Your task to perform on an android device: What's the news in Jamaica? Image 0: 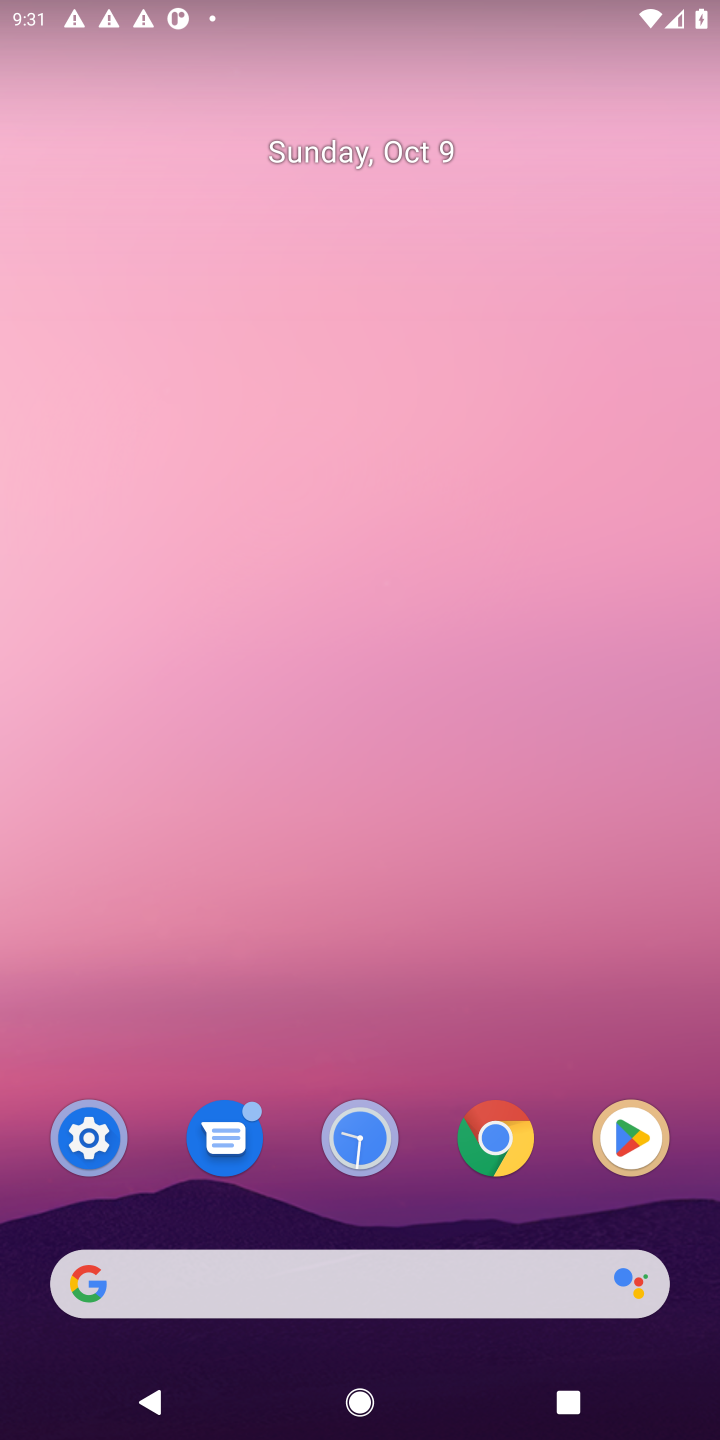
Step 0: click (494, 1140)
Your task to perform on an android device: What's the news in Jamaica? Image 1: 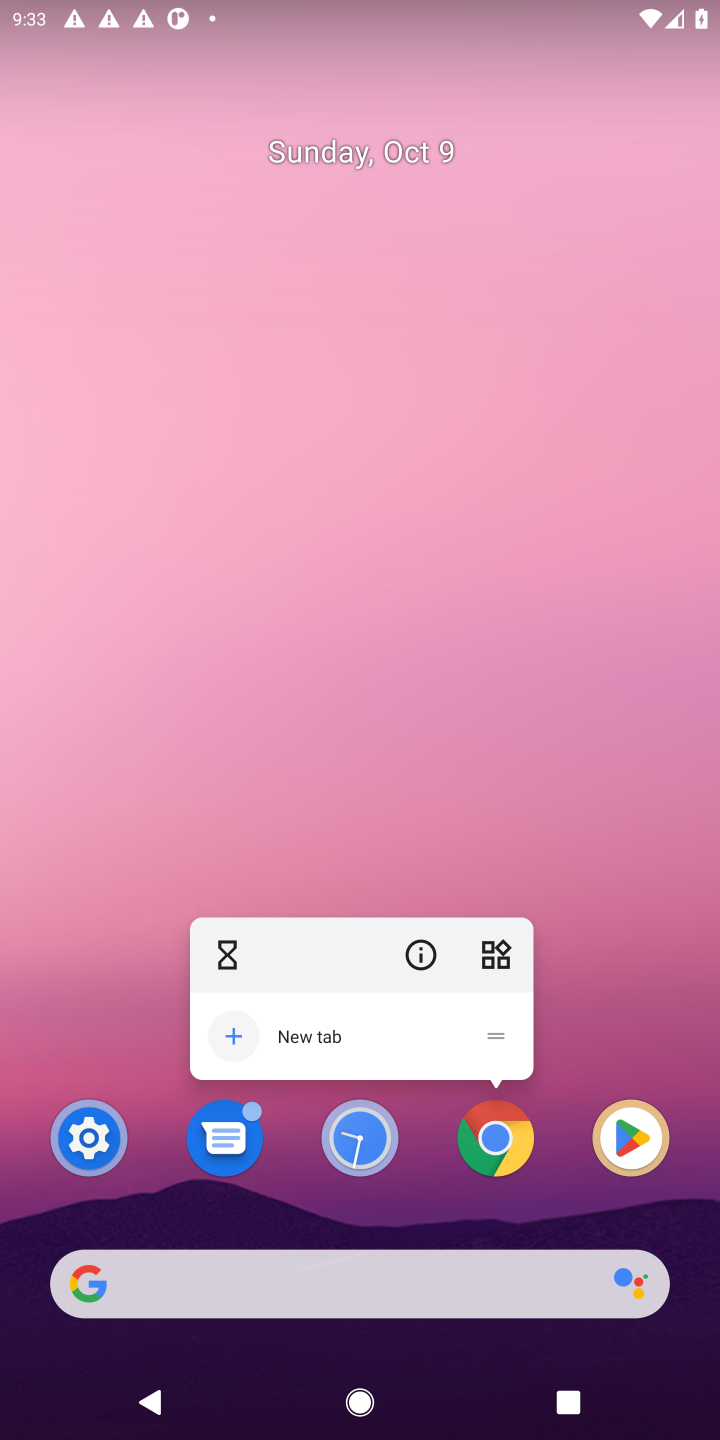
Step 1: click (488, 1143)
Your task to perform on an android device: What's the news in Jamaica? Image 2: 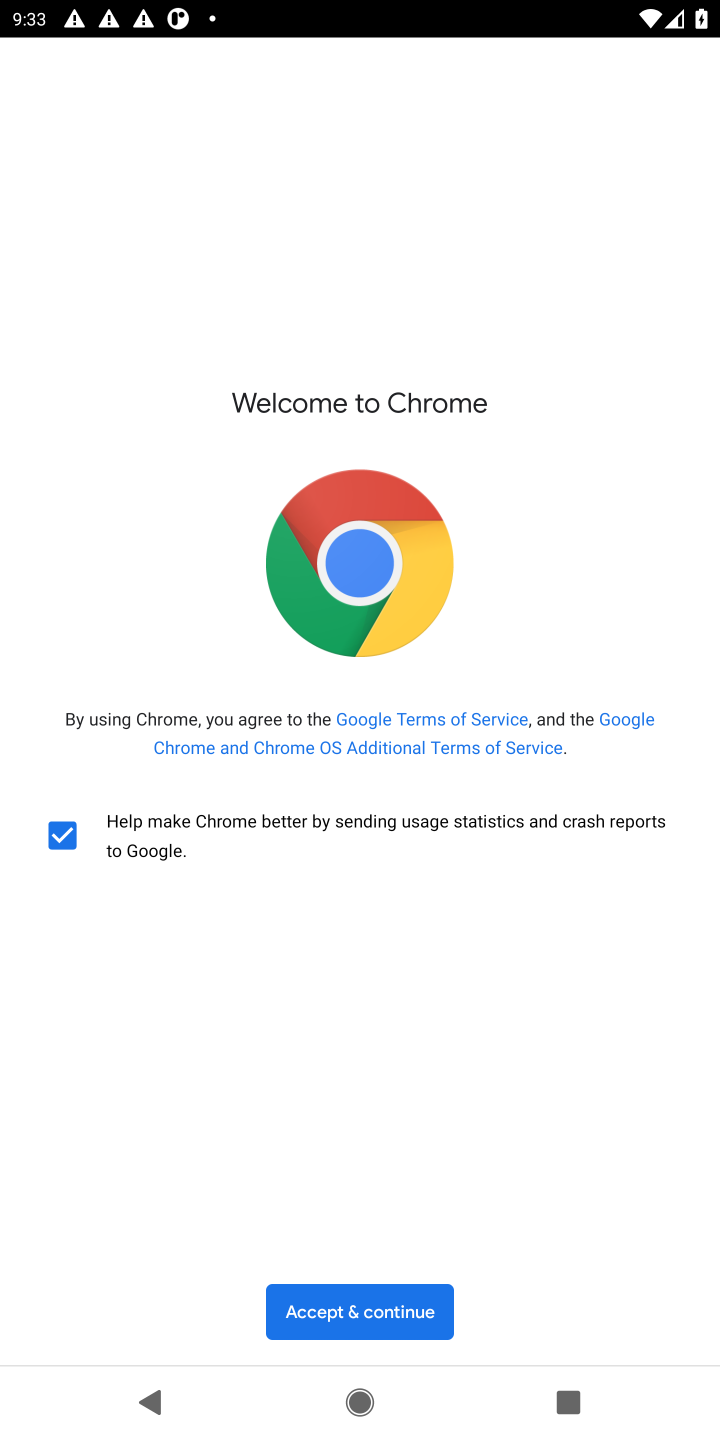
Step 2: click (341, 1306)
Your task to perform on an android device: What's the news in Jamaica? Image 3: 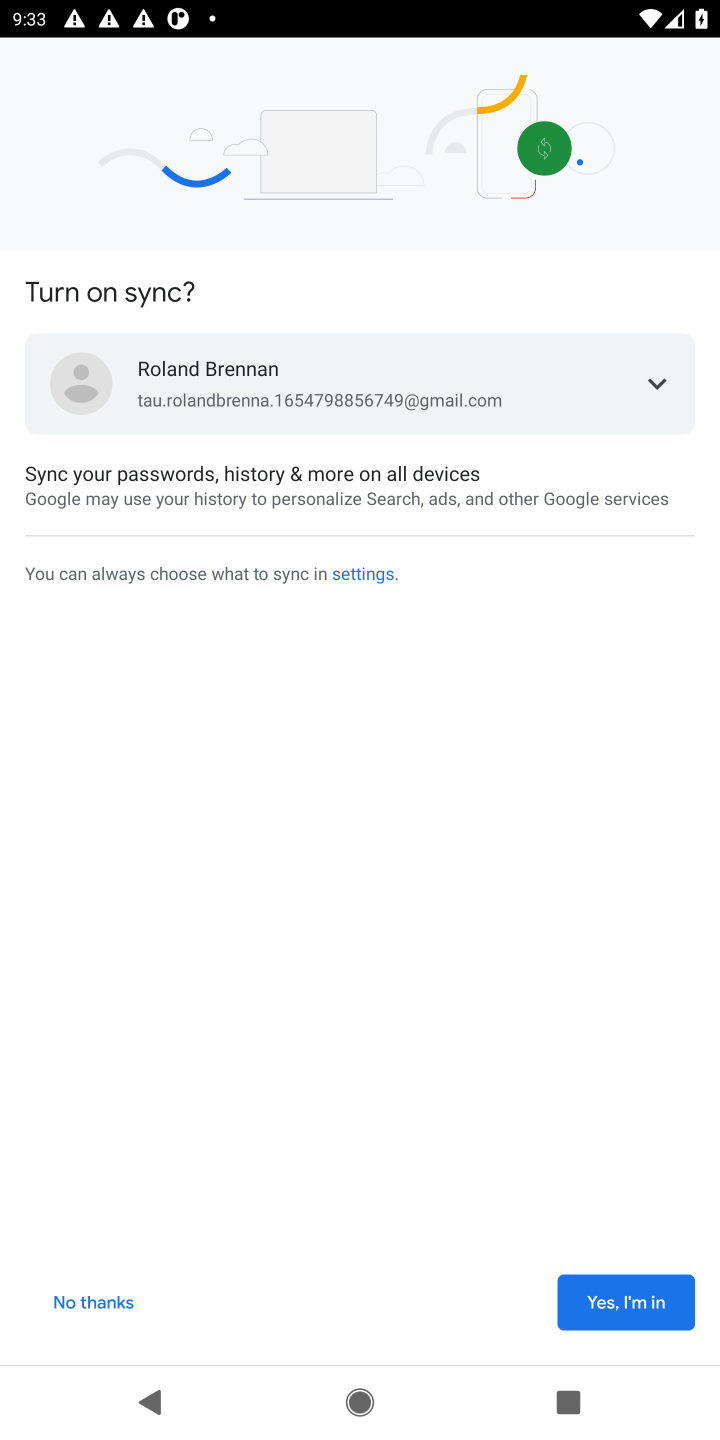
Step 3: click (589, 1312)
Your task to perform on an android device: What's the news in Jamaica? Image 4: 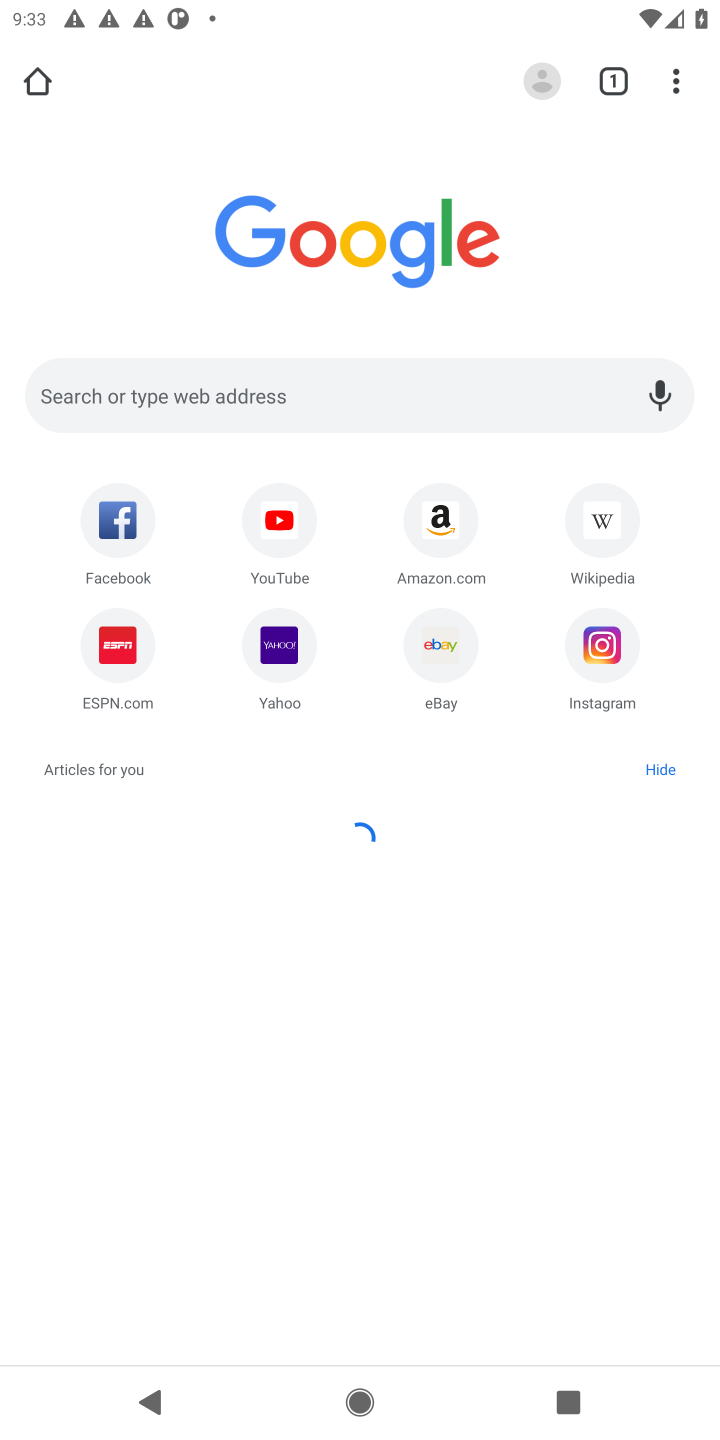
Step 4: click (263, 395)
Your task to perform on an android device: What's the news in Jamaica? Image 5: 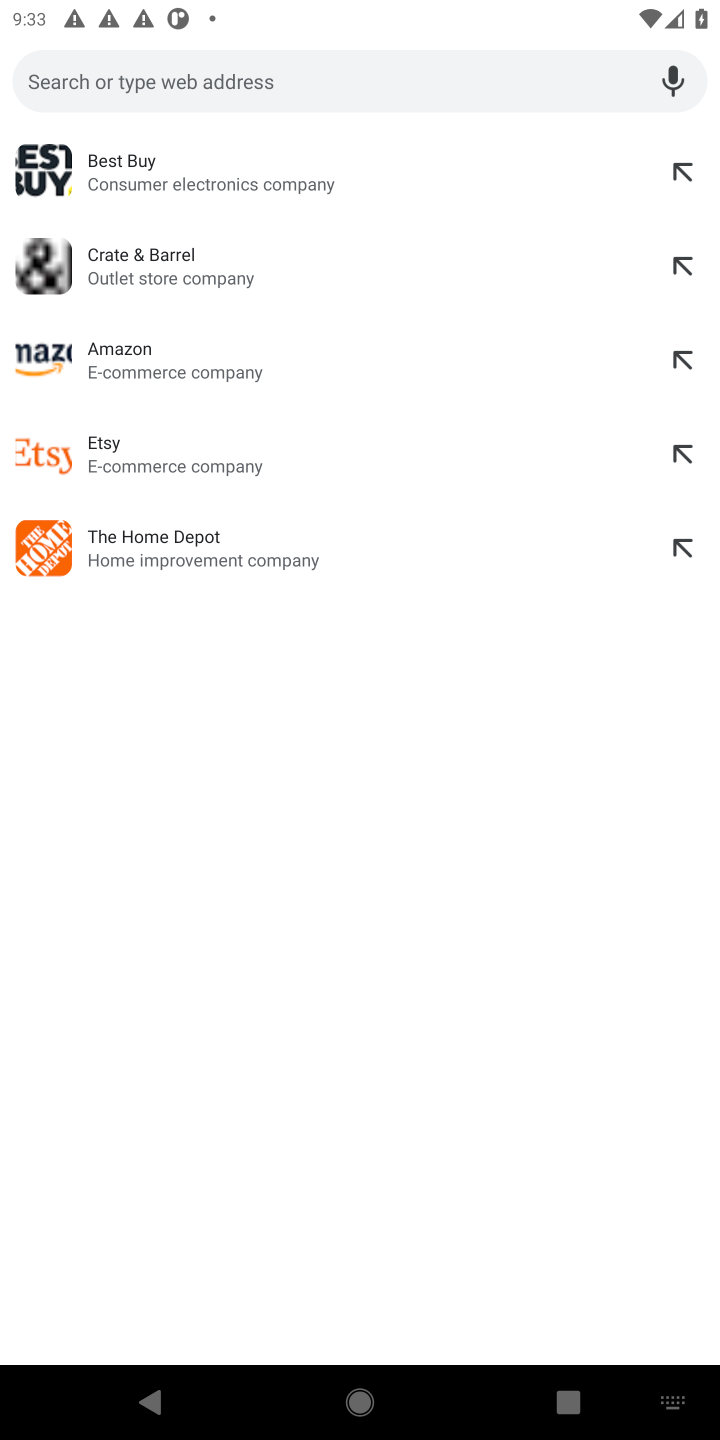
Step 5: type "whats the news in jamaica?"
Your task to perform on an android device: What's the news in Jamaica? Image 6: 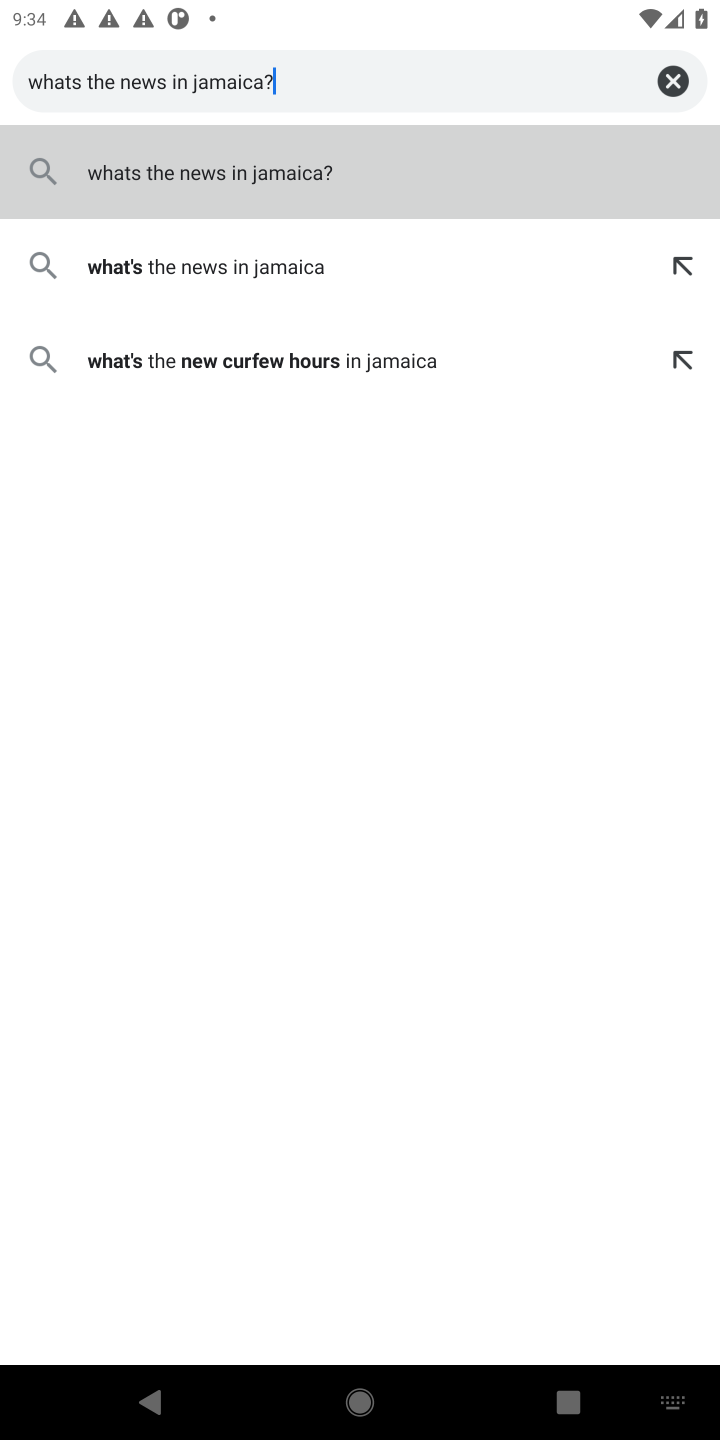
Step 6: click (307, 169)
Your task to perform on an android device: What's the news in Jamaica? Image 7: 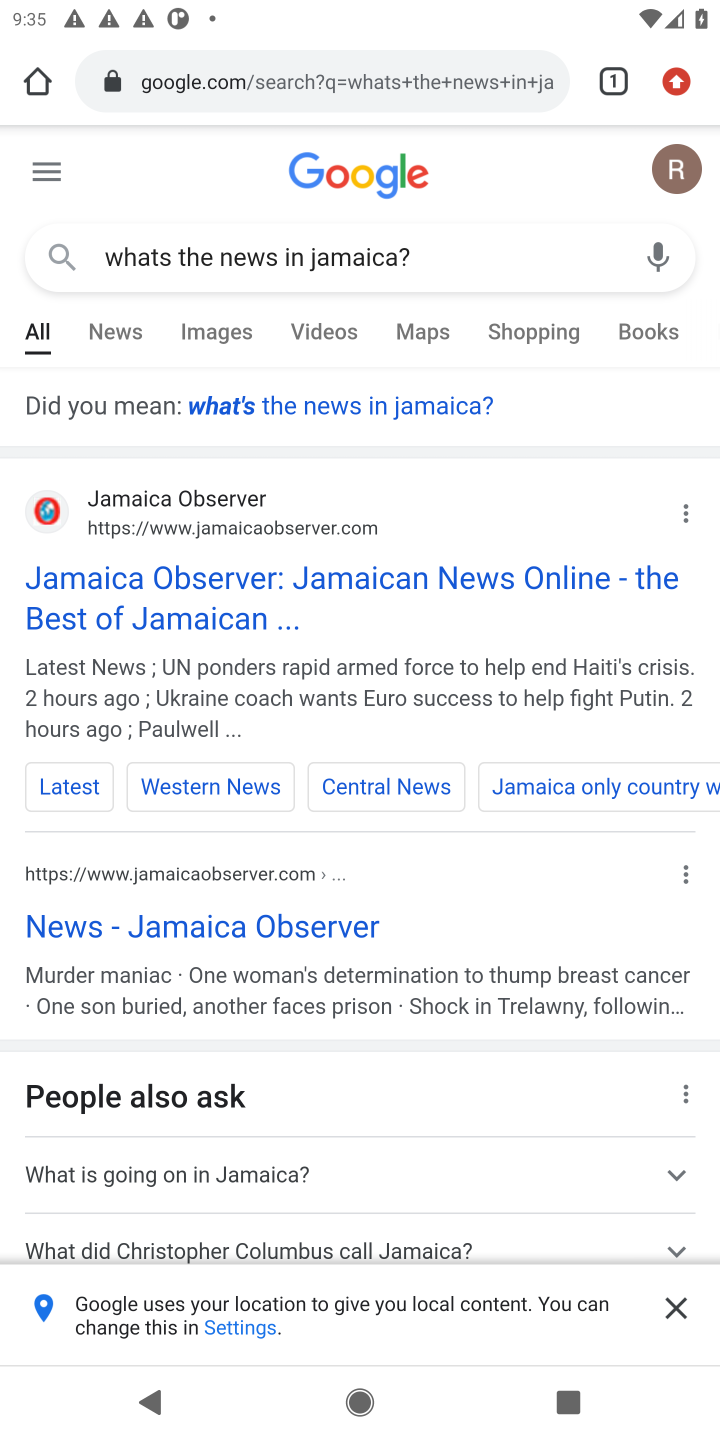
Step 7: task complete